Your task to perform on an android device: Turn off the flashlight Image 0: 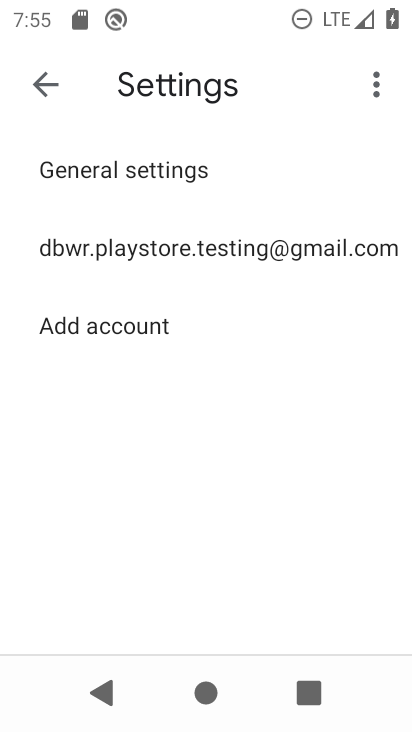
Step 0: press home button
Your task to perform on an android device: Turn off the flashlight Image 1: 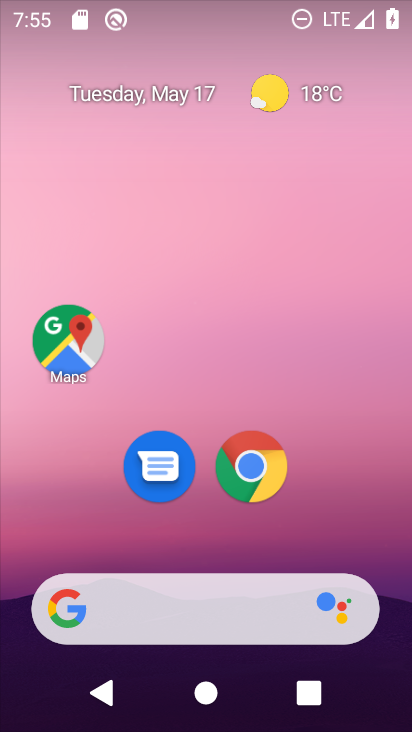
Step 1: drag from (244, 14) to (154, 467)
Your task to perform on an android device: Turn off the flashlight Image 2: 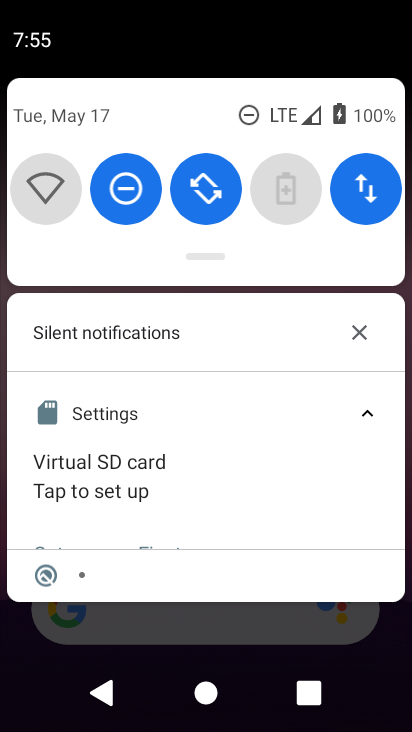
Step 2: drag from (216, 245) to (198, 517)
Your task to perform on an android device: Turn off the flashlight Image 3: 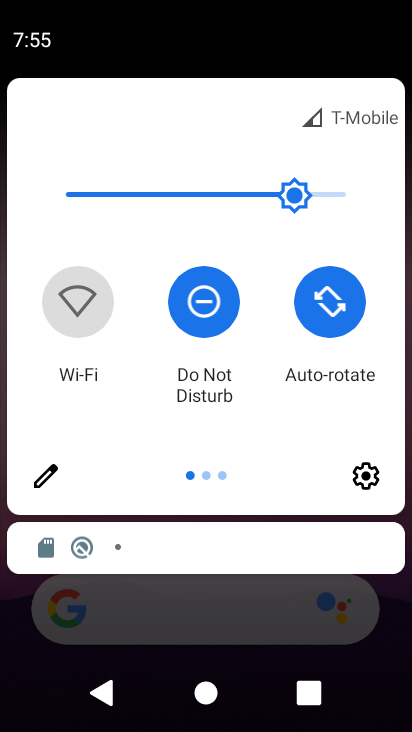
Step 3: drag from (220, 451) to (206, 606)
Your task to perform on an android device: Turn off the flashlight Image 4: 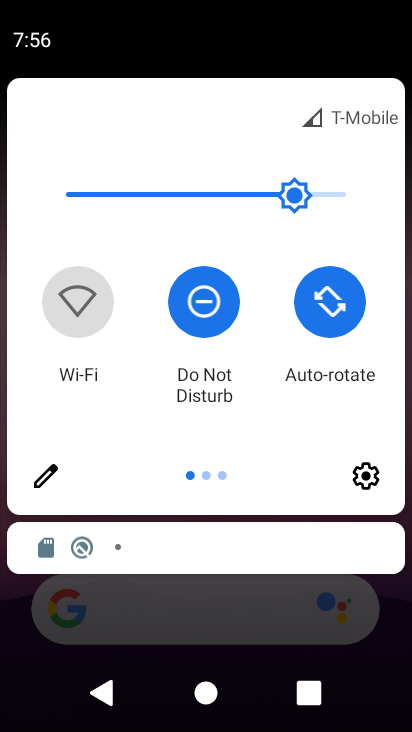
Step 4: drag from (328, 424) to (23, 456)
Your task to perform on an android device: Turn off the flashlight Image 5: 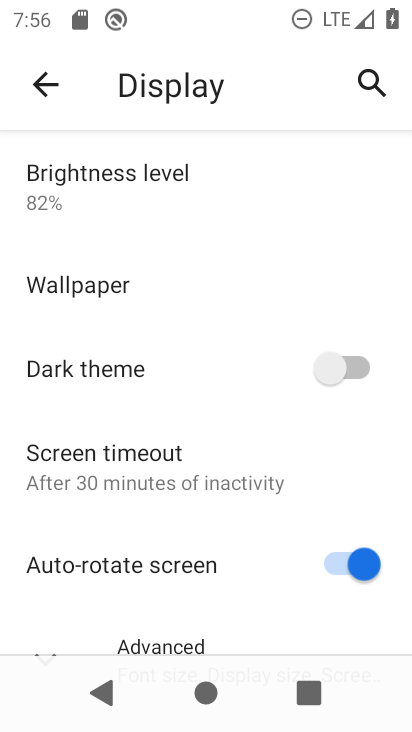
Step 5: click (39, 92)
Your task to perform on an android device: Turn off the flashlight Image 6: 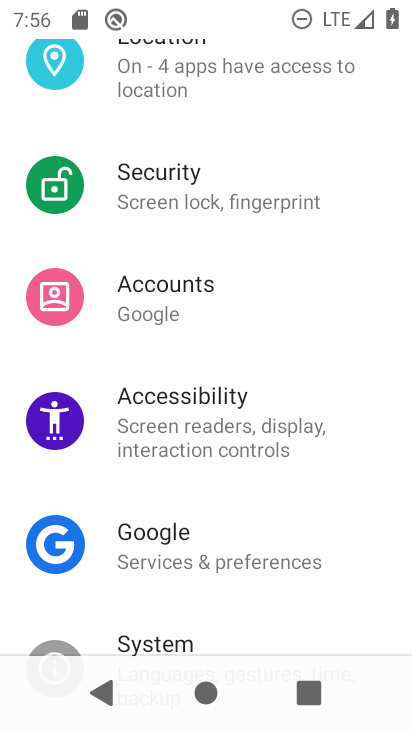
Step 6: task complete